Your task to perform on an android device: Show me productivity apps on the Play Store Image 0: 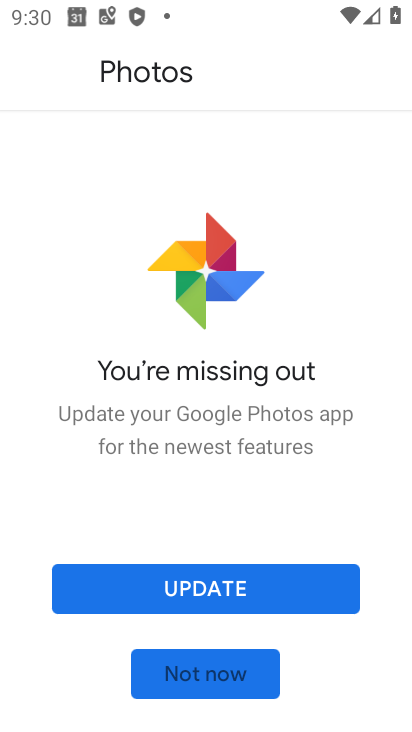
Step 0: press home button
Your task to perform on an android device: Show me productivity apps on the Play Store Image 1: 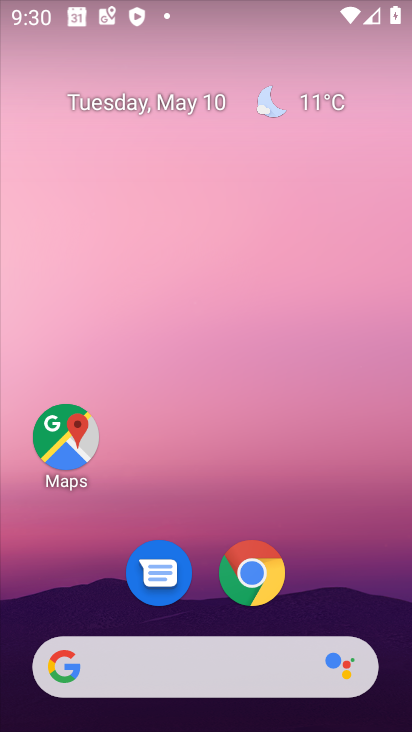
Step 1: drag from (365, 627) to (376, 15)
Your task to perform on an android device: Show me productivity apps on the Play Store Image 2: 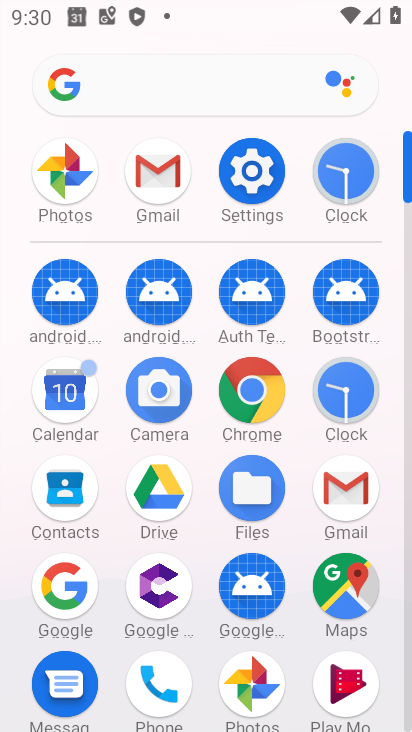
Step 2: click (411, 584)
Your task to perform on an android device: Show me productivity apps on the Play Store Image 3: 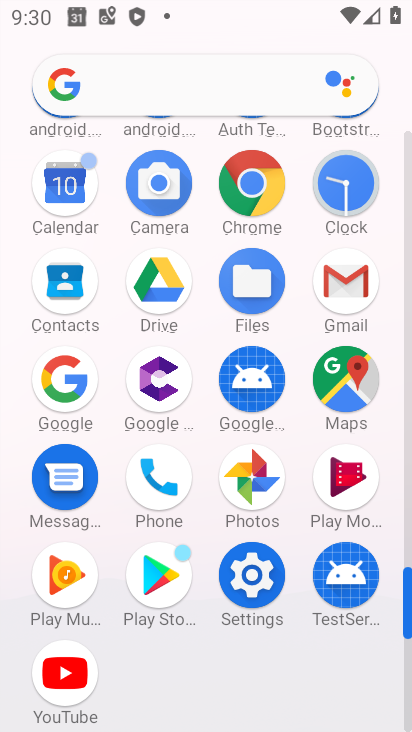
Step 3: click (150, 577)
Your task to perform on an android device: Show me productivity apps on the Play Store Image 4: 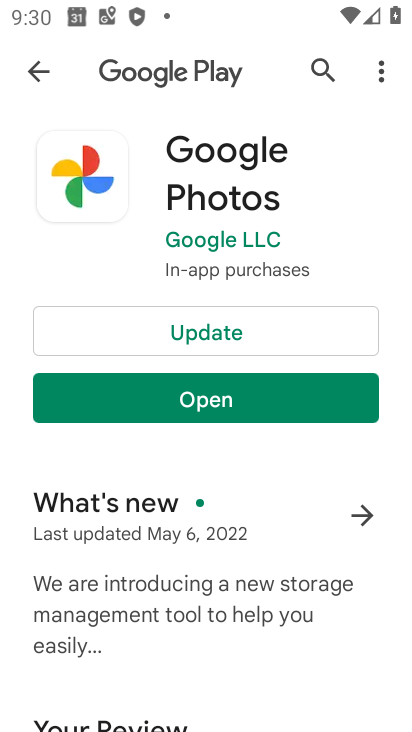
Step 4: click (30, 73)
Your task to perform on an android device: Show me productivity apps on the Play Store Image 5: 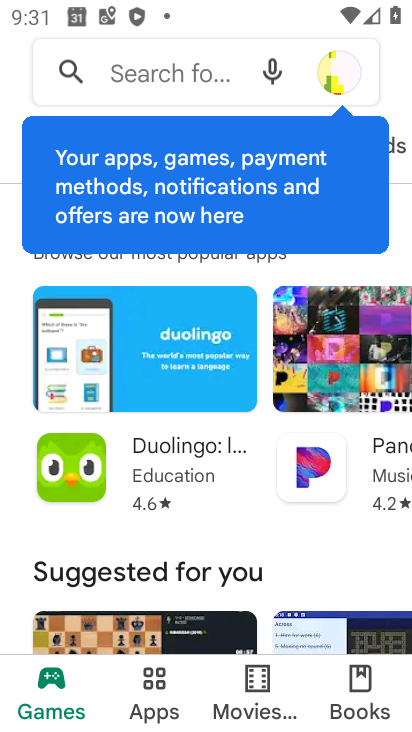
Step 5: click (150, 703)
Your task to perform on an android device: Show me productivity apps on the Play Store Image 6: 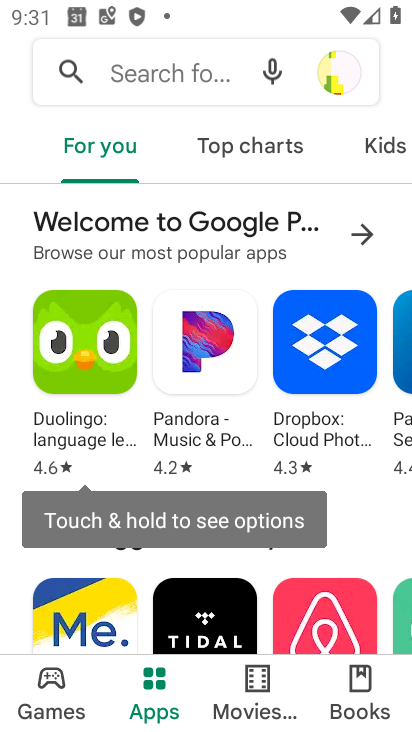
Step 6: drag from (348, 143) to (8, 180)
Your task to perform on an android device: Show me productivity apps on the Play Store Image 7: 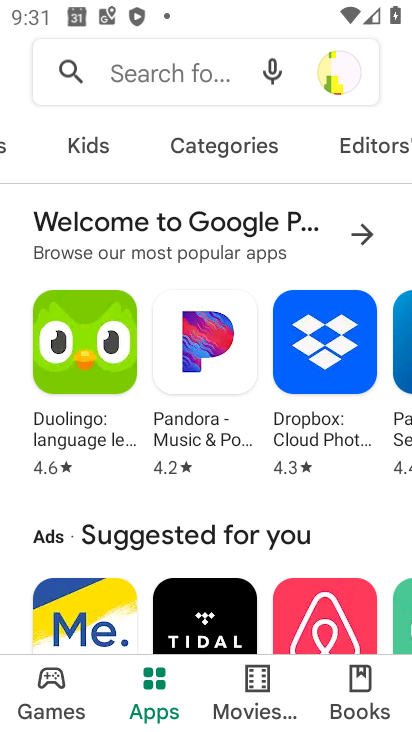
Step 7: click (235, 152)
Your task to perform on an android device: Show me productivity apps on the Play Store Image 8: 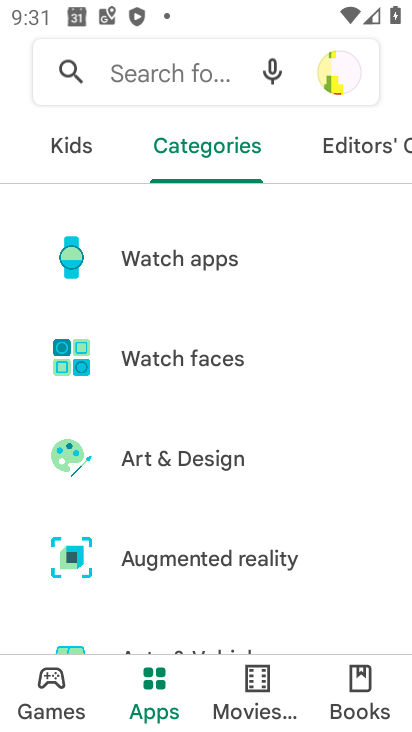
Step 8: drag from (297, 599) to (250, 174)
Your task to perform on an android device: Show me productivity apps on the Play Store Image 9: 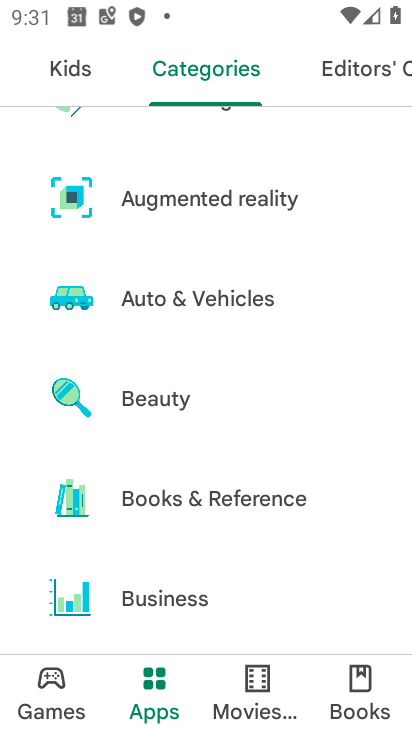
Step 9: drag from (265, 579) to (245, 121)
Your task to perform on an android device: Show me productivity apps on the Play Store Image 10: 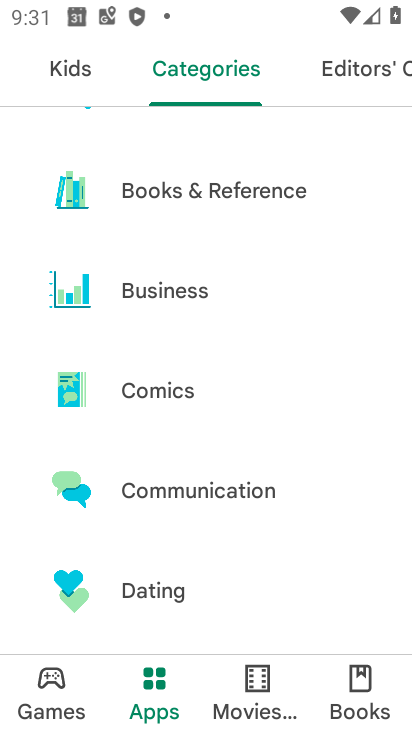
Step 10: drag from (268, 519) to (230, 142)
Your task to perform on an android device: Show me productivity apps on the Play Store Image 11: 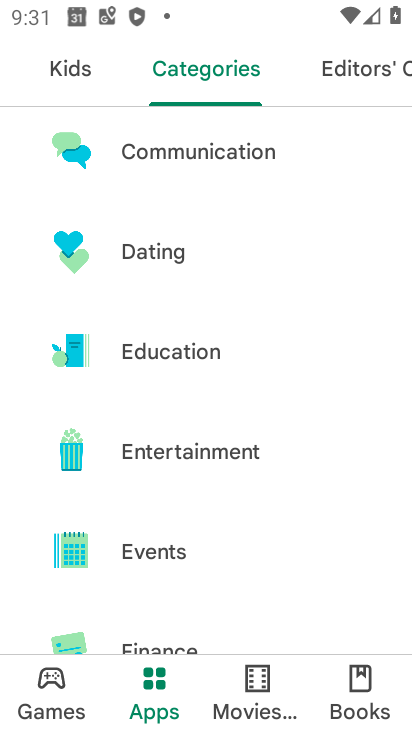
Step 11: drag from (240, 559) to (236, 195)
Your task to perform on an android device: Show me productivity apps on the Play Store Image 12: 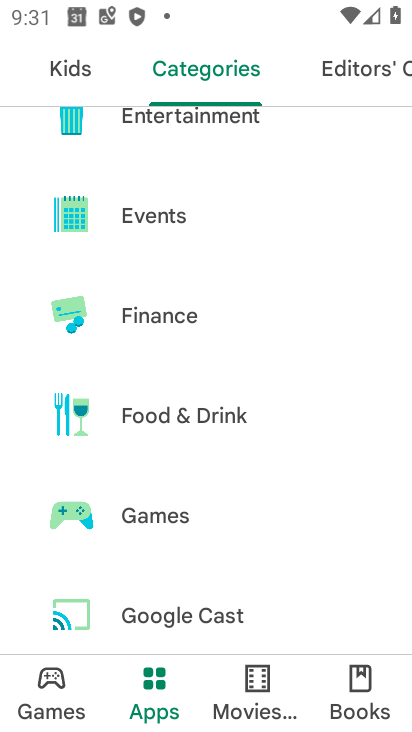
Step 12: drag from (245, 562) to (223, 158)
Your task to perform on an android device: Show me productivity apps on the Play Store Image 13: 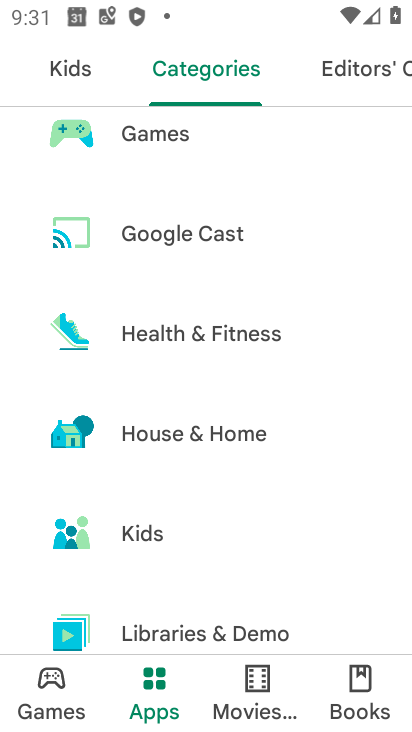
Step 13: drag from (273, 518) to (267, 150)
Your task to perform on an android device: Show me productivity apps on the Play Store Image 14: 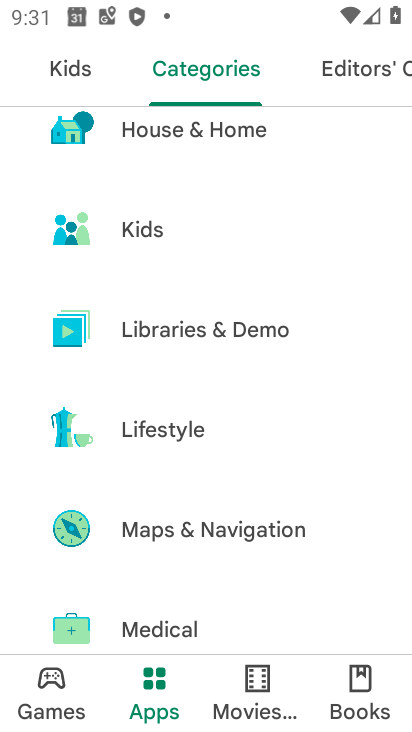
Step 14: drag from (257, 564) to (243, 160)
Your task to perform on an android device: Show me productivity apps on the Play Store Image 15: 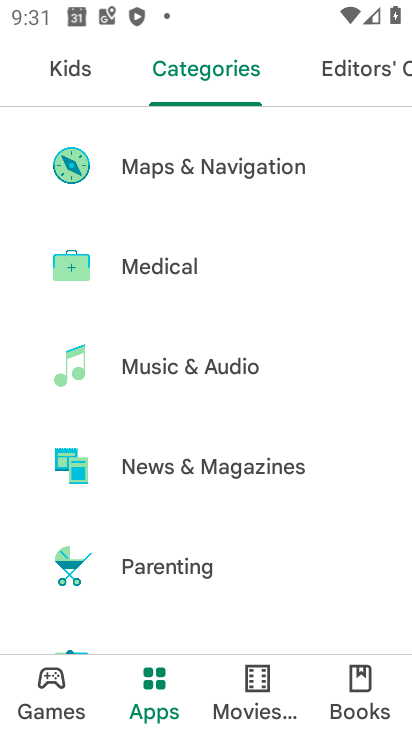
Step 15: drag from (273, 590) to (279, 151)
Your task to perform on an android device: Show me productivity apps on the Play Store Image 16: 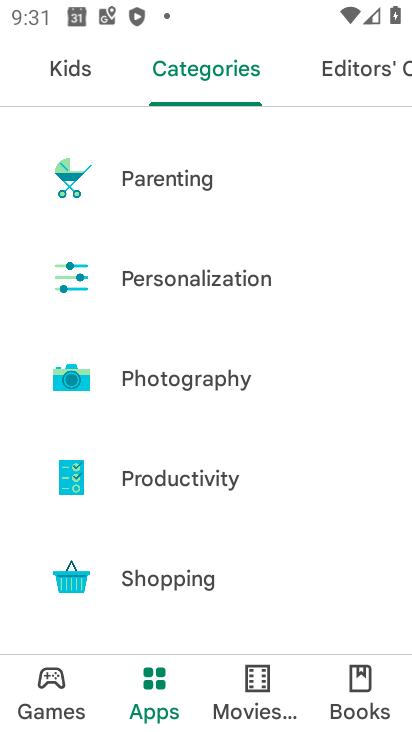
Step 16: click (189, 485)
Your task to perform on an android device: Show me productivity apps on the Play Store Image 17: 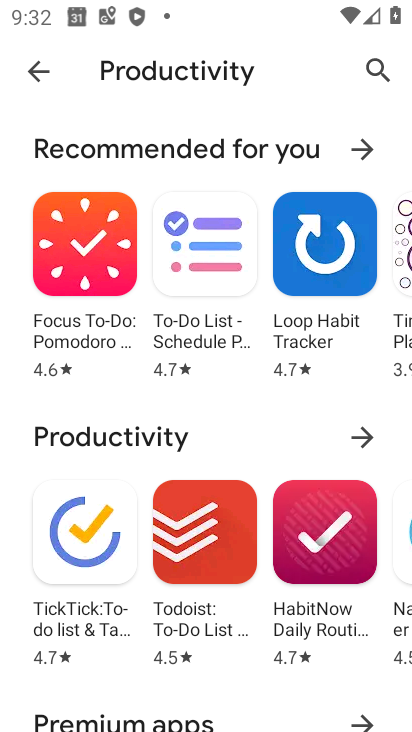
Step 17: task complete